Your task to perform on an android device: turn on the 24-hour format for clock Image 0: 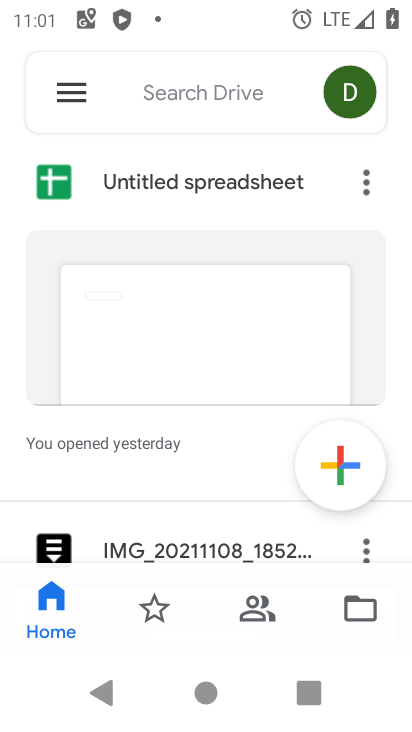
Step 0: press home button
Your task to perform on an android device: turn on the 24-hour format for clock Image 1: 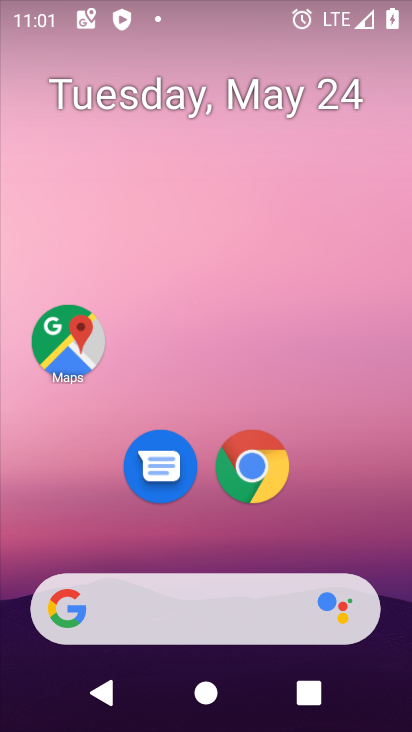
Step 1: drag from (373, 532) to (378, 193)
Your task to perform on an android device: turn on the 24-hour format for clock Image 2: 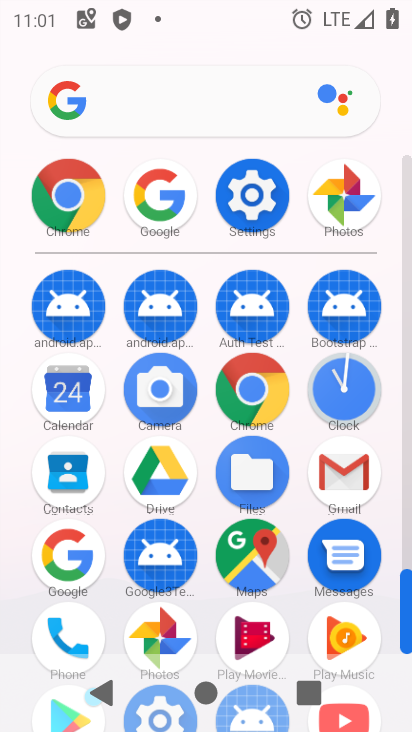
Step 2: click (344, 373)
Your task to perform on an android device: turn on the 24-hour format for clock Image 3: 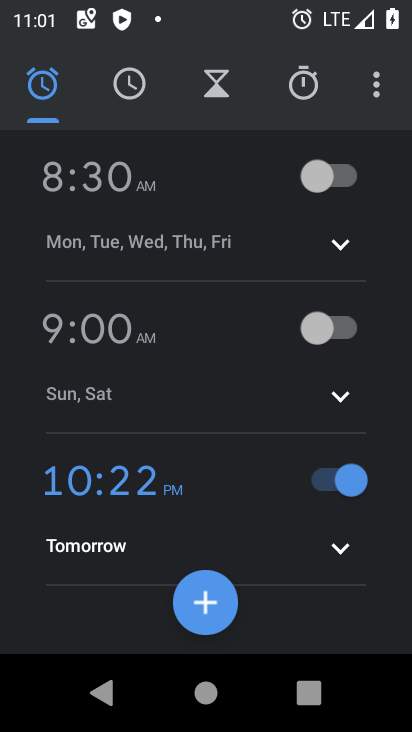
Step 3: click (375, 102)
Your task to perform on an android device: turn on the 24-hour format for clock Image 4: 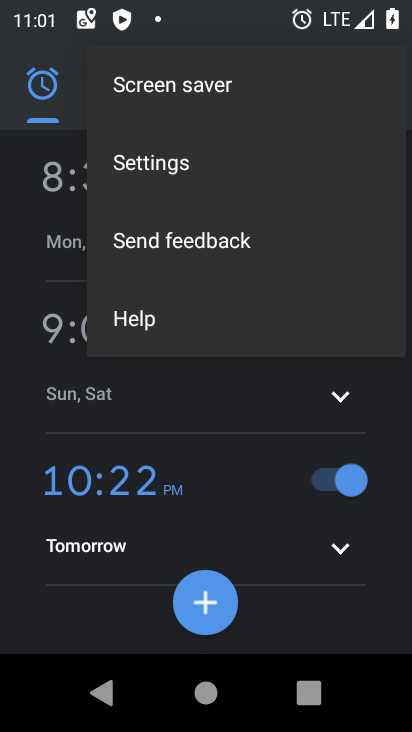
Step 4: click (201, 174)
Your task to perform on an android device: turn on the 24-hour format for clock Image 5: 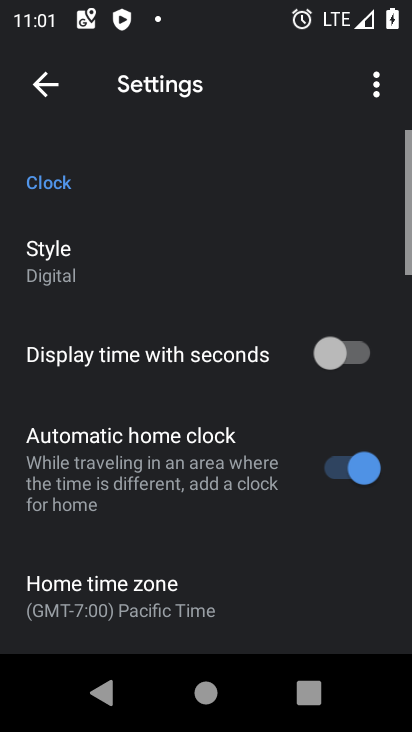
Step 5: drag from (268, 558) to (281, 375)
Your task to perform on an android device: turn on the 24-hour format for clock Image 6: 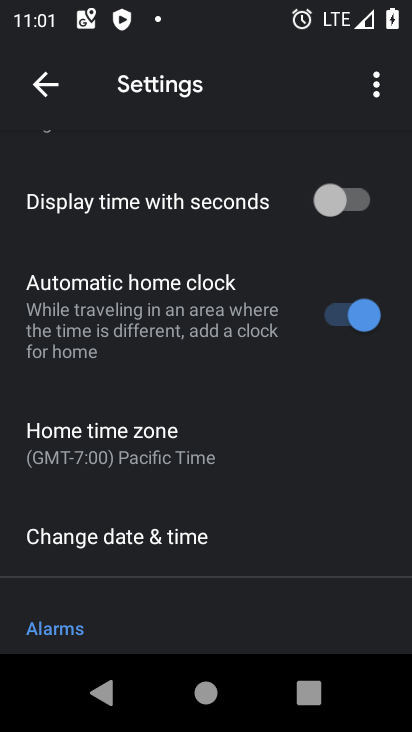
Step 6: drag from (301, 522) to (308, 449)
Your task to perform on an android device: turn on the 24-hour format for clock Image 7: 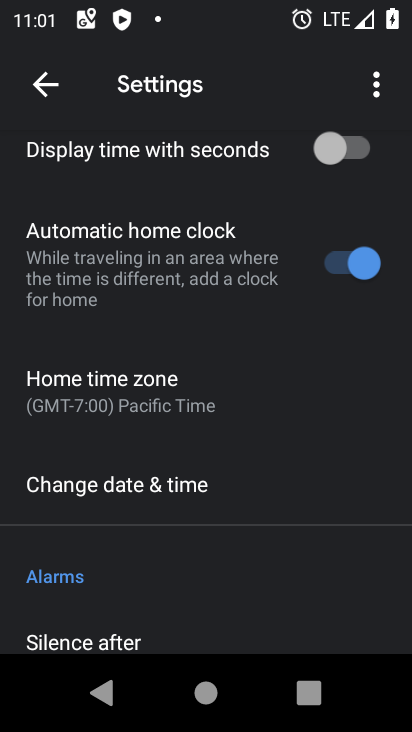
Step 7: drag from (317, 534) to (337, 449)
Your task to perform on an android device: turn on the 24-hour format for clock Image 8: 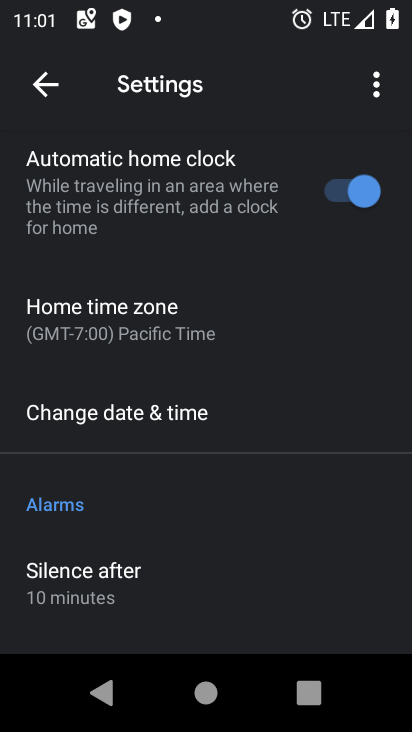
Step 8: drag from (339, 528) to (340, 433)
Your task to perform on an android device: turn on the 24-hour format for clock Image 9: 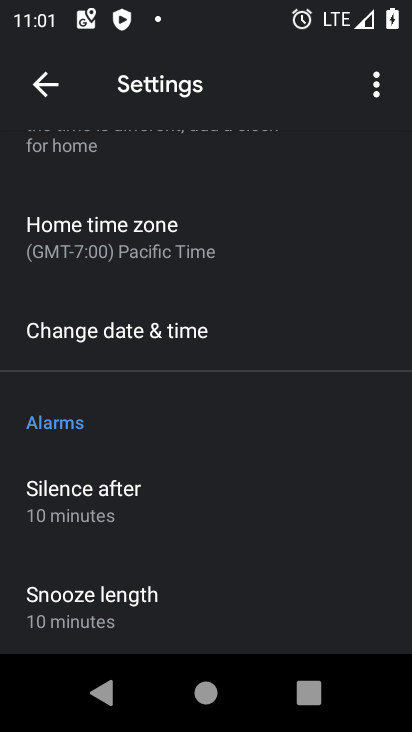
Step 9: drag from (335, 541) to (340, 447)
Your task to perform on an android device: turn on the 24-hour format for clock Image 10: 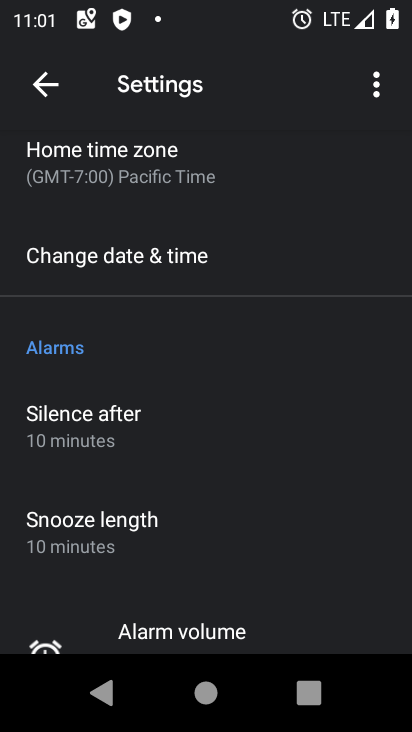
Step 10: drag from (341, 541) to (348, 446)
Your task to perform on an android device: turn on the 24-hour format for clock Image 11: 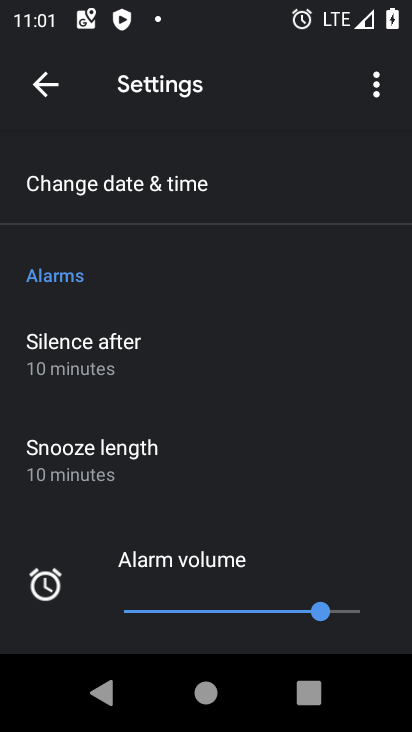
Step 11: drag from (353, 549) to (360, 463)
Your task to perform on an android device: turn on the 24-hour format for clock Image 12: 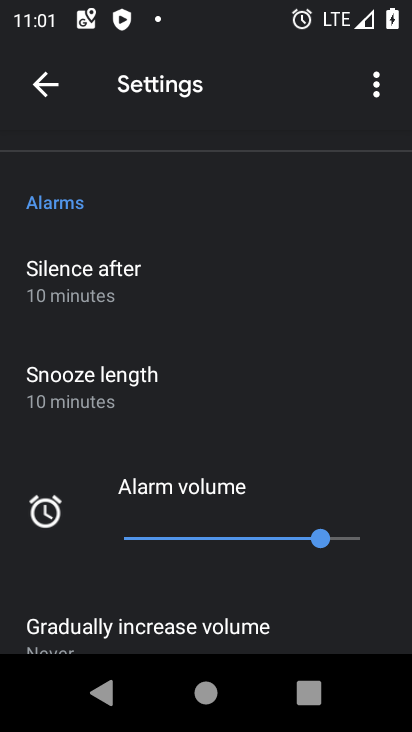
Step 12: drag from (365, 606) to (351, 508)
Your task to perform on an android device: turn on the 24-hour format for clock Image 13: 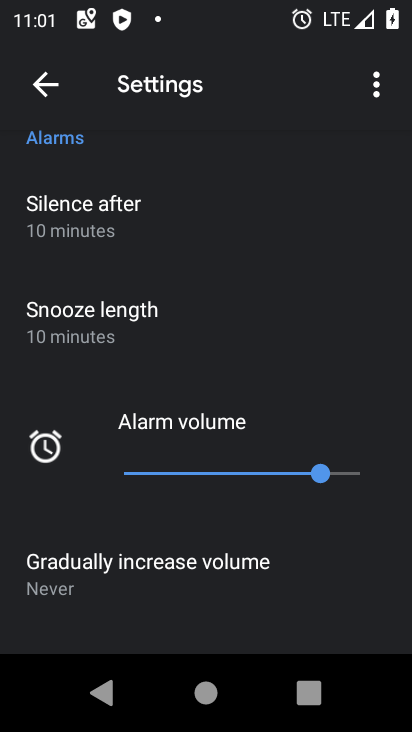
Step 13: drag from (362, 591) to (369, 468)
Your task to perform on an android device: turn on the 24-hour format for clock Image 14: 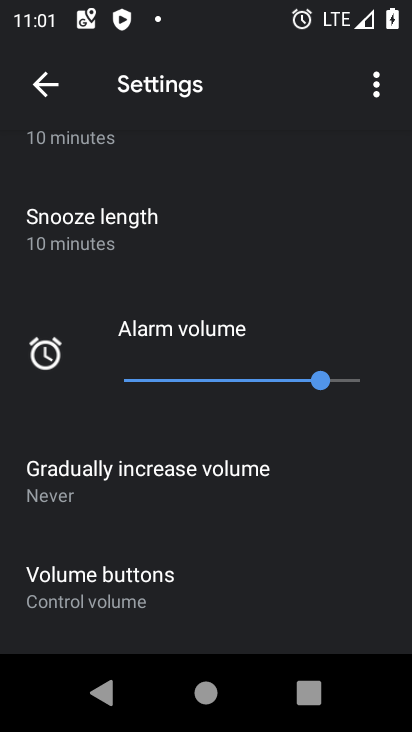
Step 14: drag from (369, 561) to (355, 453)
Your task to perform on an android device: turn on the 24-hour format for clock Image 15: 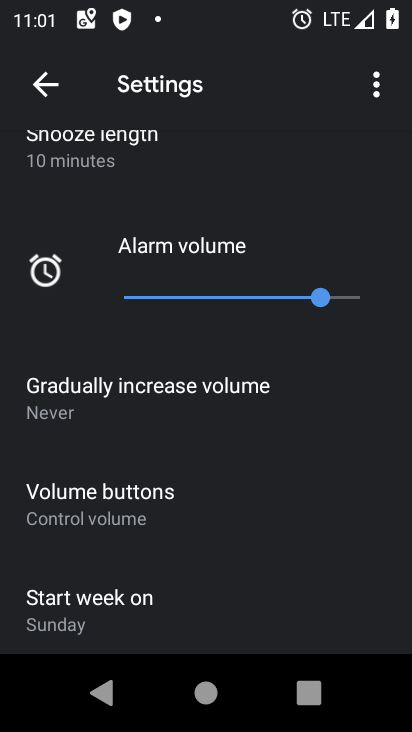
Step 15: drag from (337, 245) to (342, 385)
Your task to perform on an android device: turn on the 24-hour format for clock Image 16: 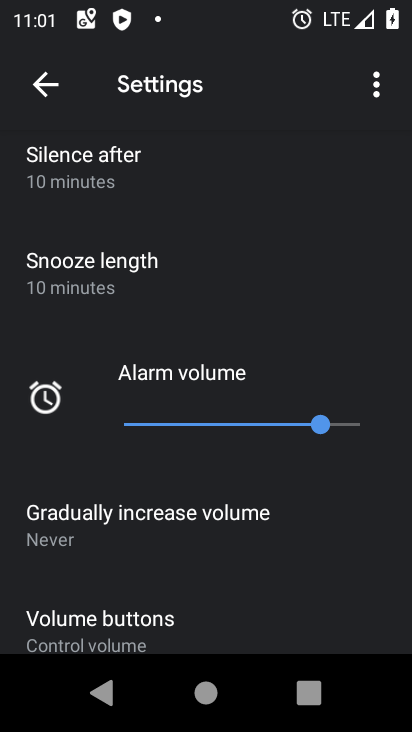
Step 16: drag from (339, 229) to (336, 327)
Your task to perform on an android device: turn on the 24-hour format for clock Image 17: 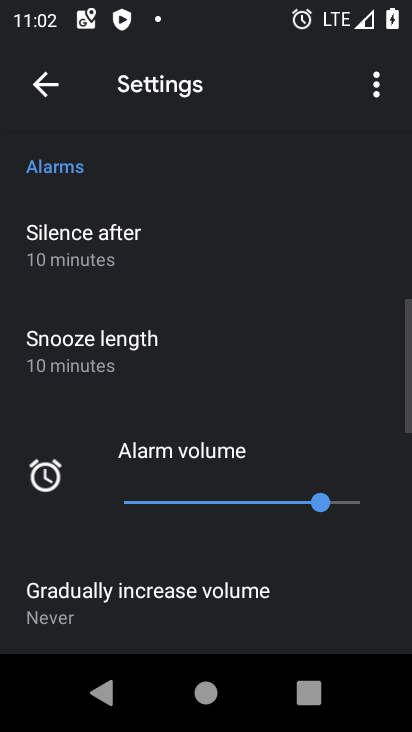
Step 17: drag from (322, 221) to (343, 342)
Your task to perform on an android device: turn on the 24-hour format for clock Image 18: 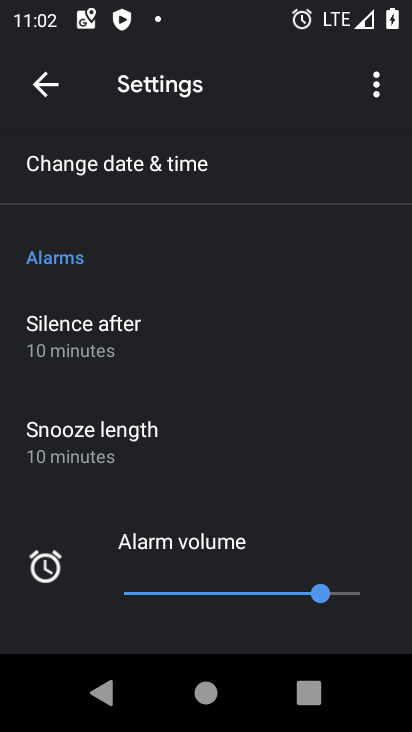
Step 18: drag from (314, 218) to (318, 349)
Your task to perform on an android device: turn on the 24-hour format for clock Image 19: 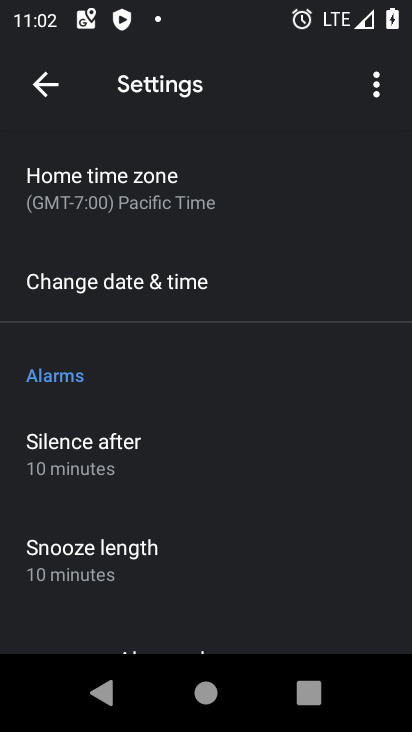
Step 19: drag from (301, 231) to (300, 359)
Your task to perform on an android device: turn on the 24-hour format for clock Image 20: 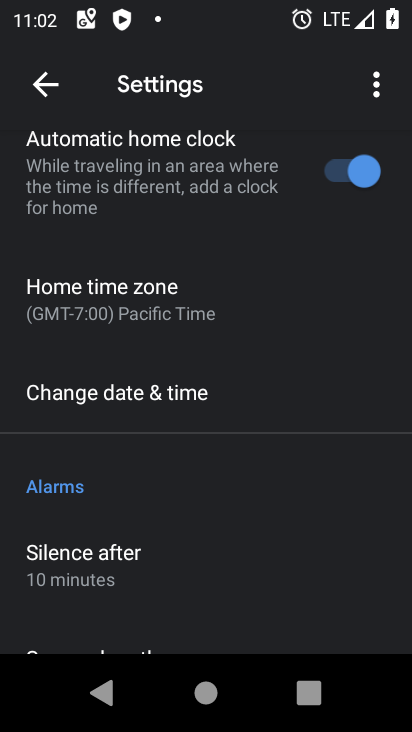
Step 20: click (209, 410)
Your task to perform on an android device: turn on the 24-hour format for clock Image 21: 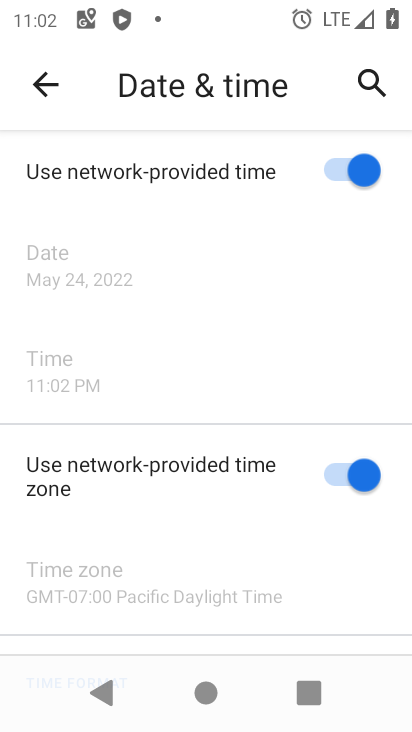
Step 21: drag from (234, 529) to (259, 354)
Your task to perform on an android device: turn on the 24-hour format for clock Image 22: 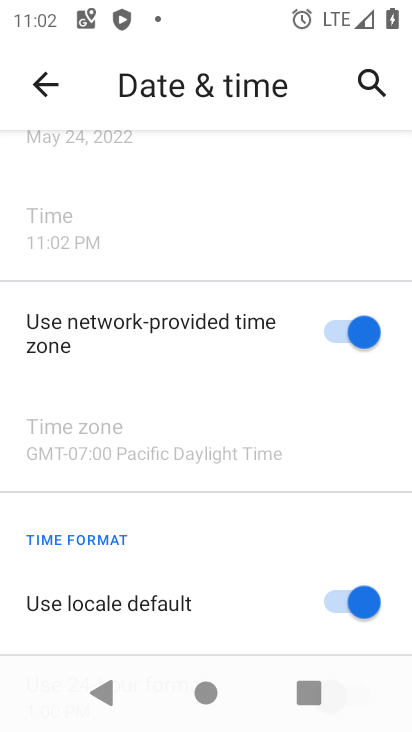
Step 22: drag from (266, 561) to (266, 358)
Your task to perform on an android device: turn on the 24-hour format for clock Image 23: 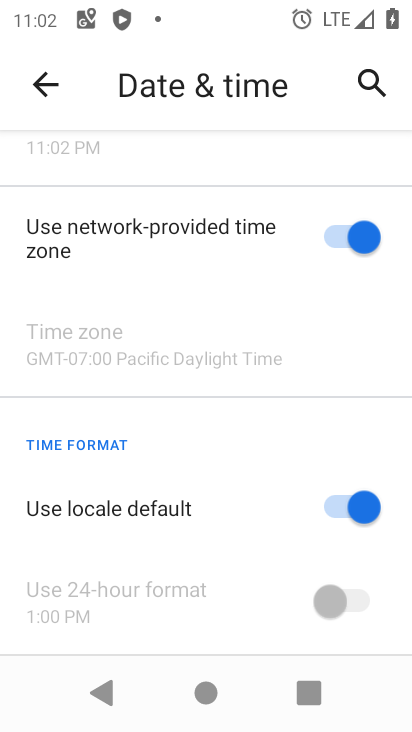
Step 23: click (365, 506)
Your task to perform on an android device: turn on the 24-hour format for clock Image 24: 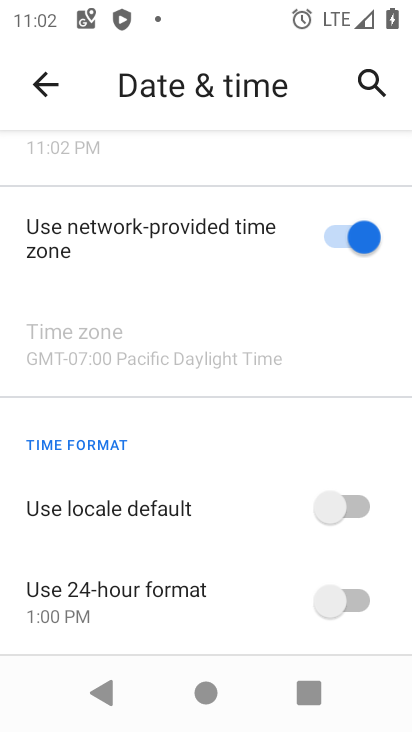
Step 24: click (345, 605)
Your task to perform on an android device: turn on the 24-hour format for clock Image 25: 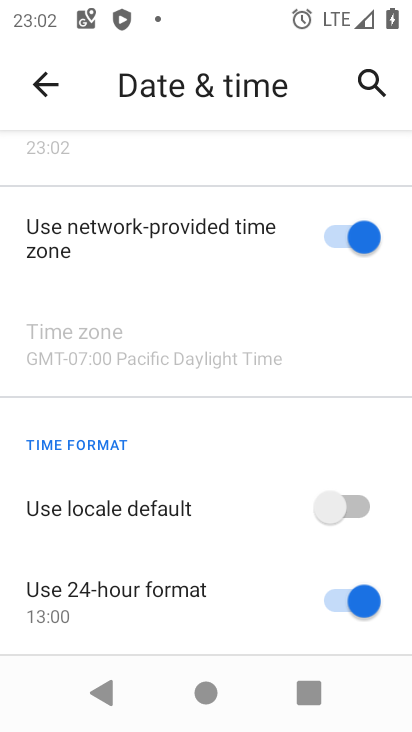
Step 25: task complete